Your task to perform on an android device: Open network settings Image 0: 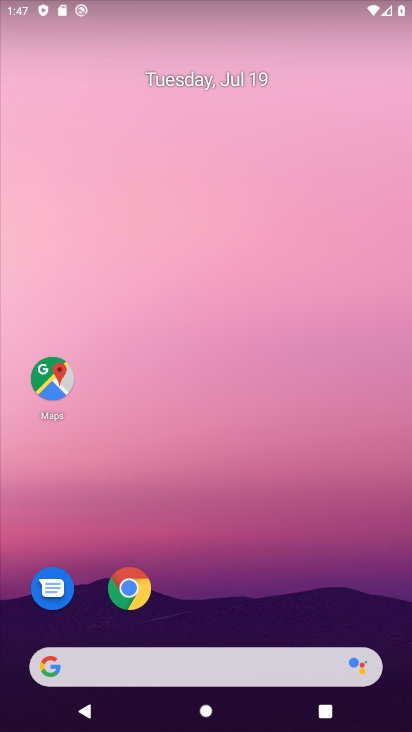
Step 0: drag from (235, 521) to (215, 43)
Your task to perform on an android device: Open network settings Image 1: 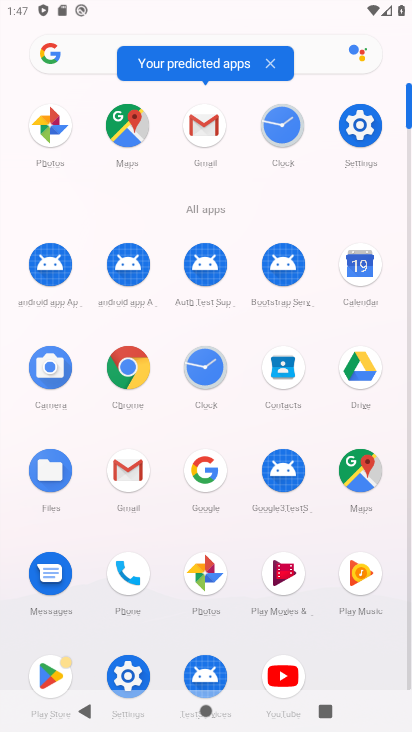
Step 1: click (360, 122)
Your task to perform on an android device: Open network settings Image 2: 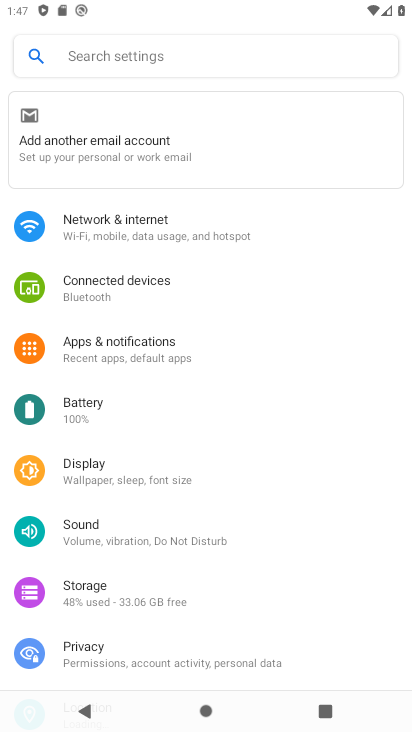
Step 2: click (102, 224)
Your task to perform on an android device: Open network settings Image 3: 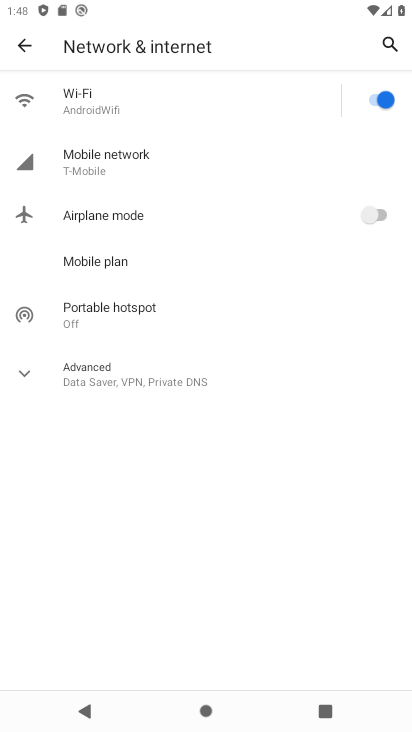
Step 3: task complete